Your task to perform on an android device: turn on the 12-hour format for clock Image 0: 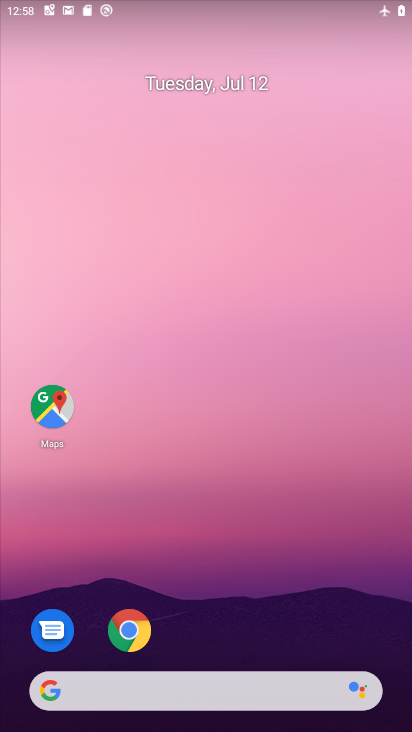
Step 0: drag from (249, 613) to (285, 102)
Your task to perform on an android device: turn on the 12-hour format for clock Image 1: 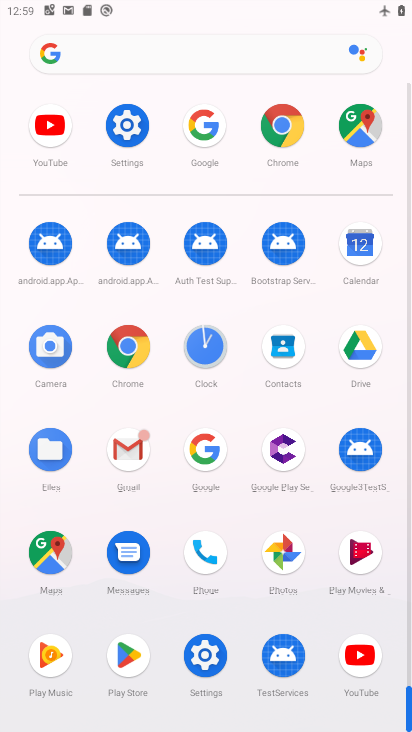
Step 1: click (204, 358)
Your task to perform on an android device: turn on the 12-hour format for clock Image 2: 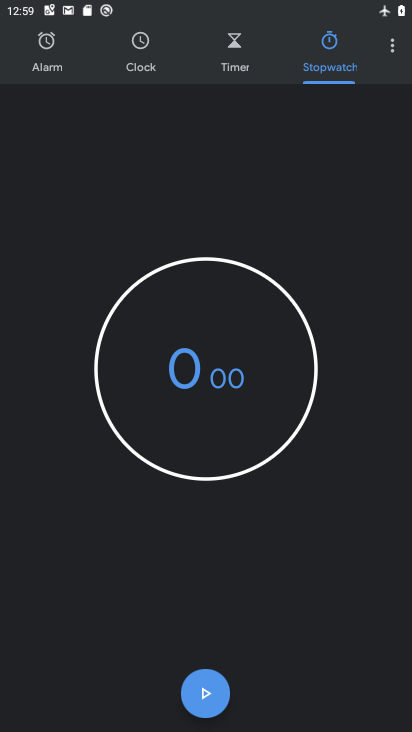
Step 2: click (391, 59)
Your task to perform on an android device: turn on the 12-hour format for clock Image 3: 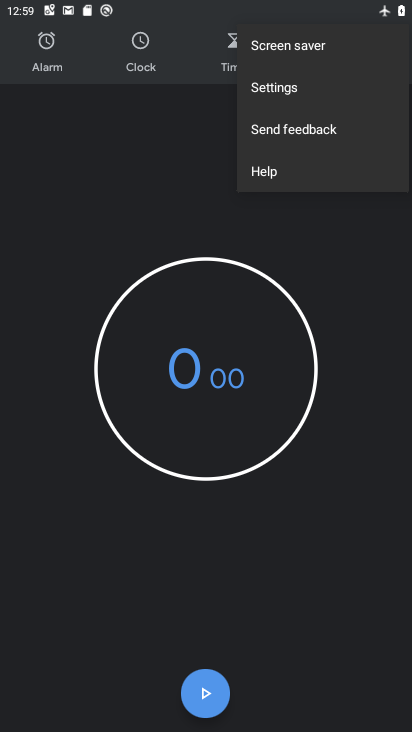
Step 3: click (290, 97)
Your task to perform on an android device: turn on the 12-hour format for clock Image 4: 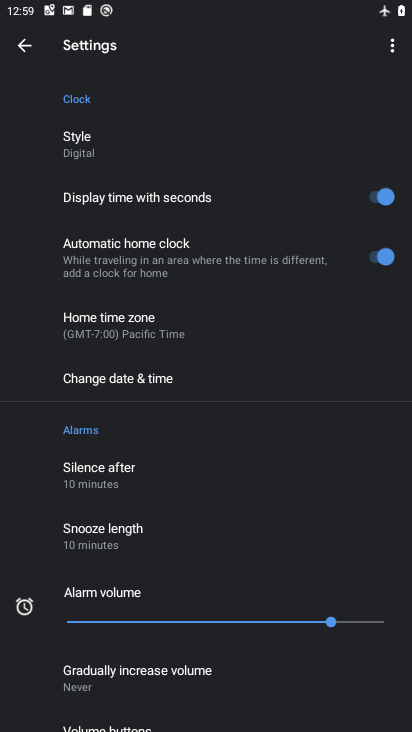
Step 4: click (174, 389)
Your task to perform on an android device: turn on the 12-hour format for clock Image 5: 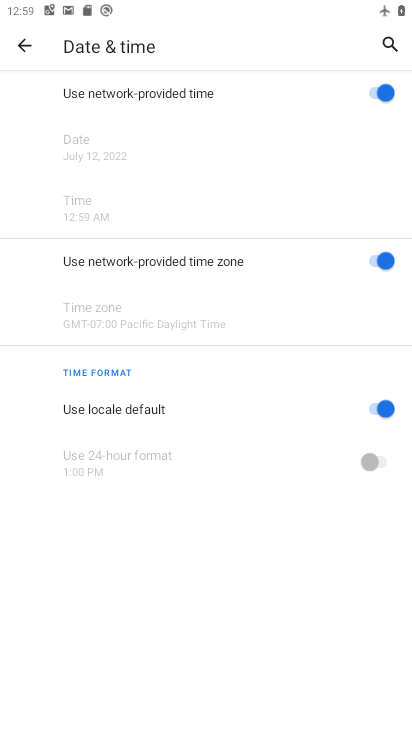
Step 5: task complete